Your task to perform on an android device: Open Google Maps Image 0: 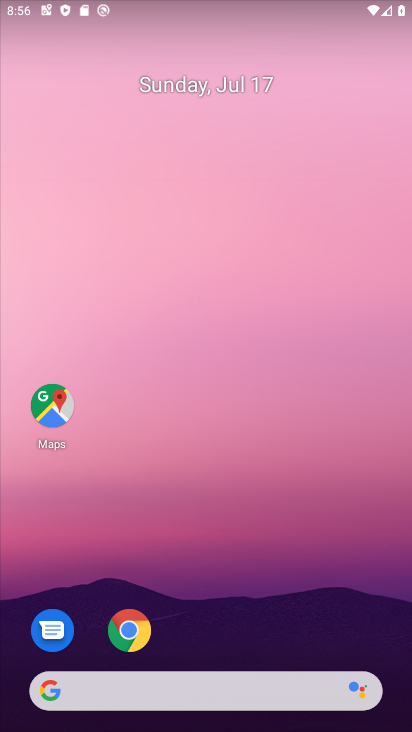
Step 0: drag from (194, 681) to (306, 68)
Your task to perform on an android device: Open Google Maps Image 1: 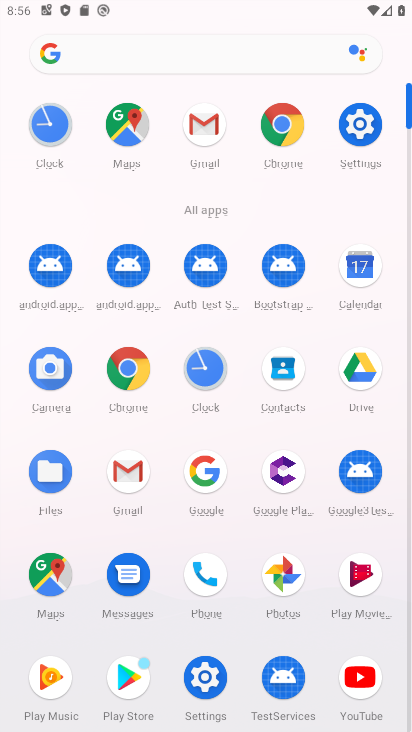
Step 1: click (69, 580)
Your task to perform on an android device: Open Google Maps Image 2: 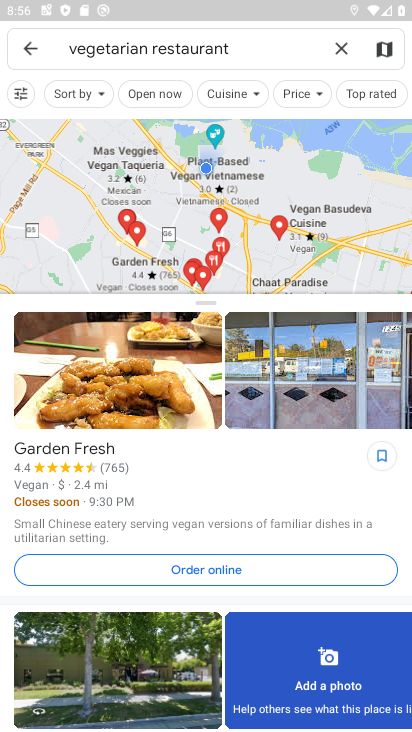
Step 2: task complete